Your task to perform on an android device: When is my next appointment? Image 0: 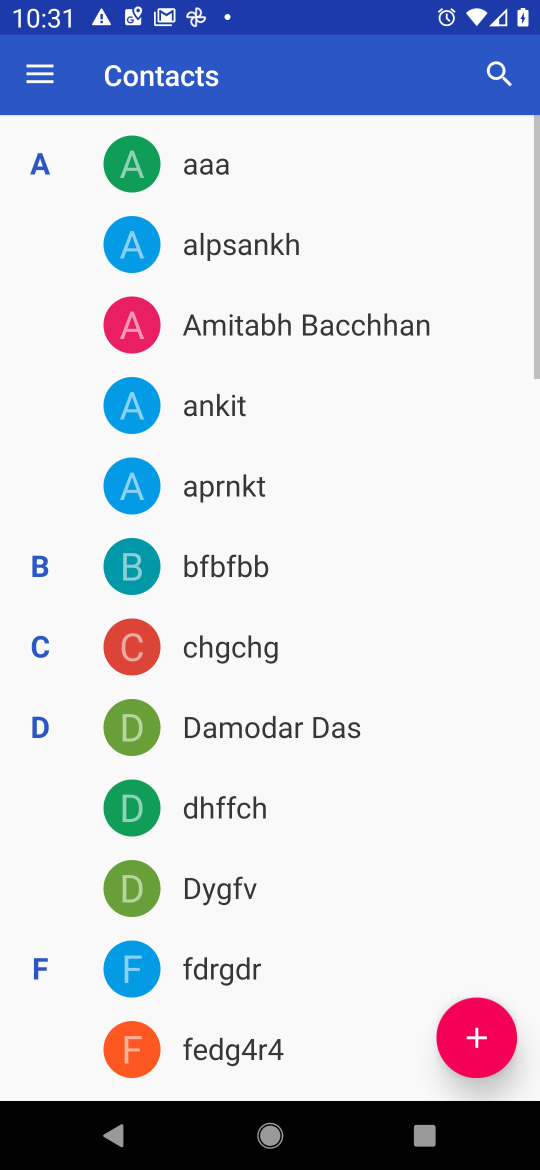
Step 0: press home button
Your task to perform on an android device: When is my next appointment? Image 1: 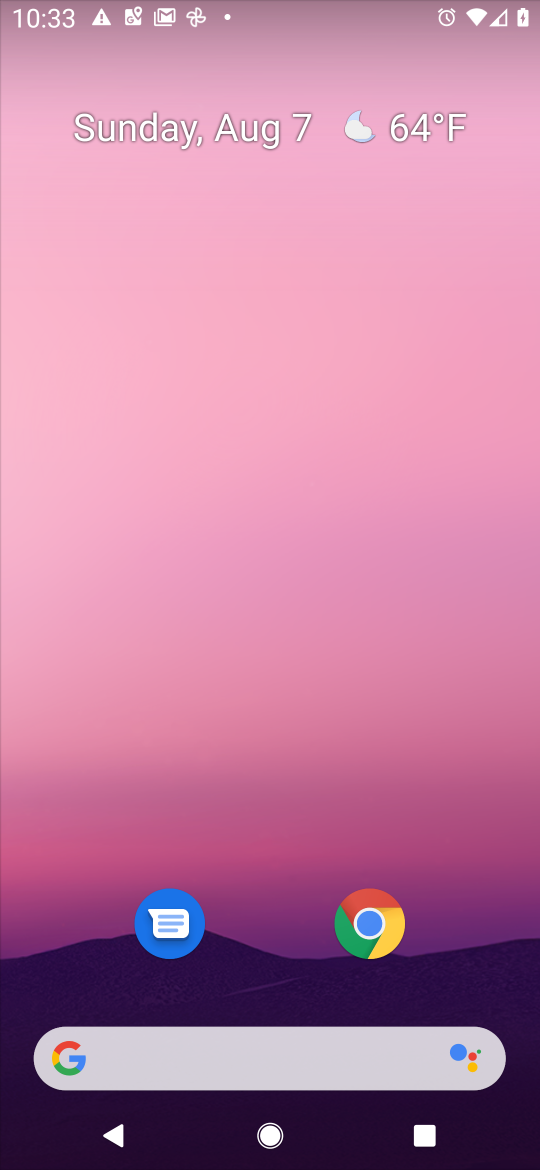
Step 1: drag from (497, 962) to (223, 32)
Your task to perform on an android device: When is my next appointment? Image 2: 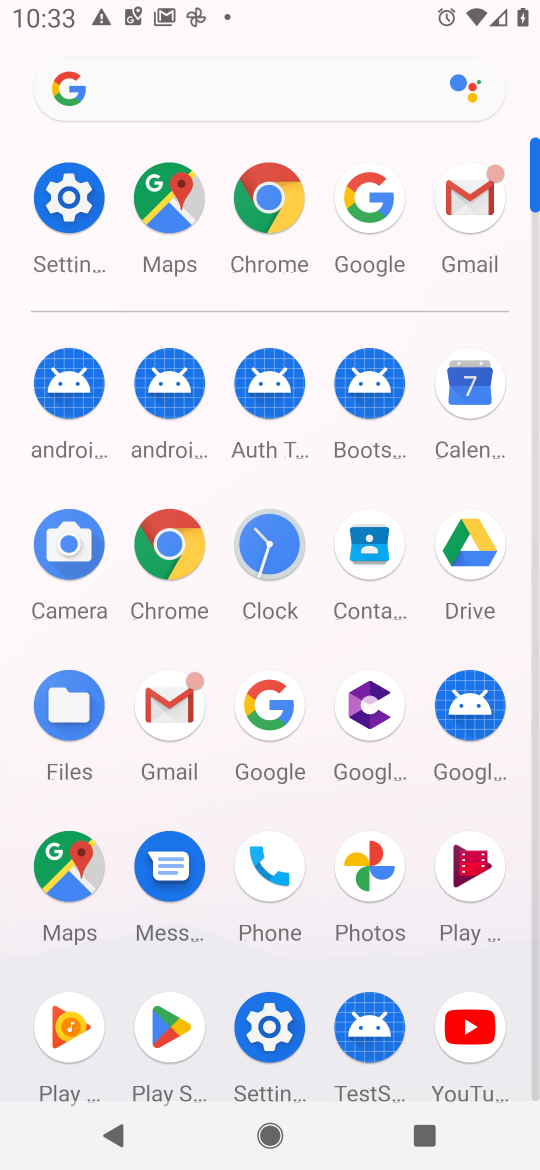
Step 2: click (468, 414)
Your task to perform on an android device: When is my next appointment? Image 3: 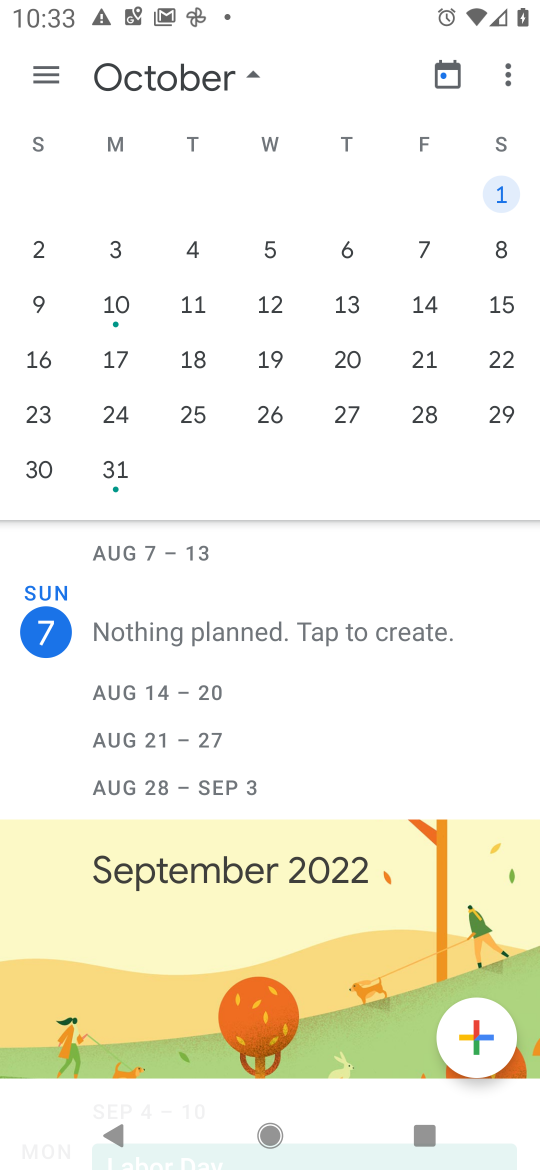
Step 3: task complete